Your task to perform on an android device: snooze an email in the gmail app Image 0: 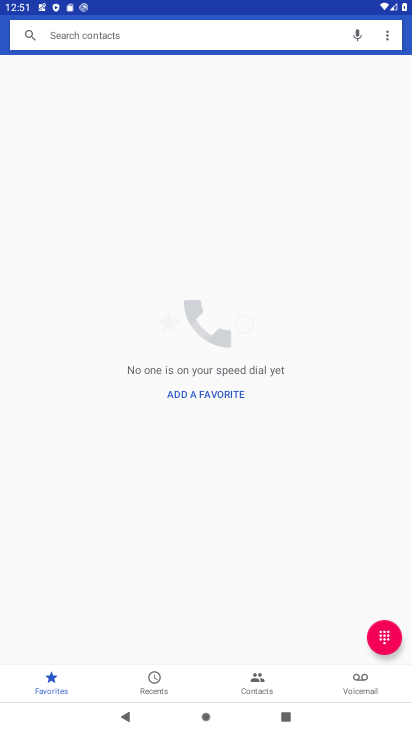
Step 0: press home button
Your task to perform on an android device: snooze an email in the gmail app Image 1: 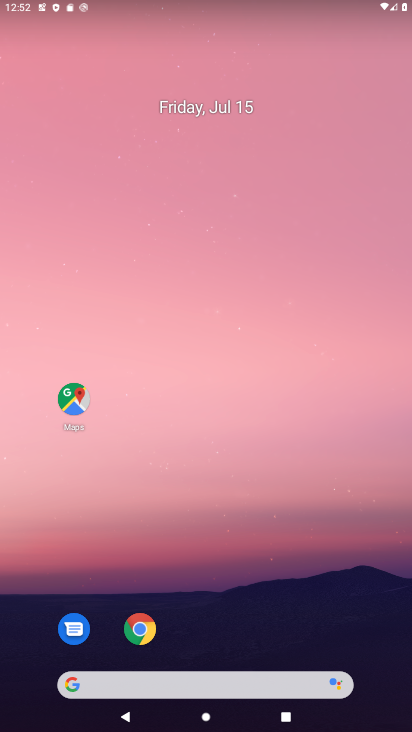
Step 1: drag from (292, 473) to (233, 112)
Your task to perform on an android device: snooze an email in the gmail app Image 2: 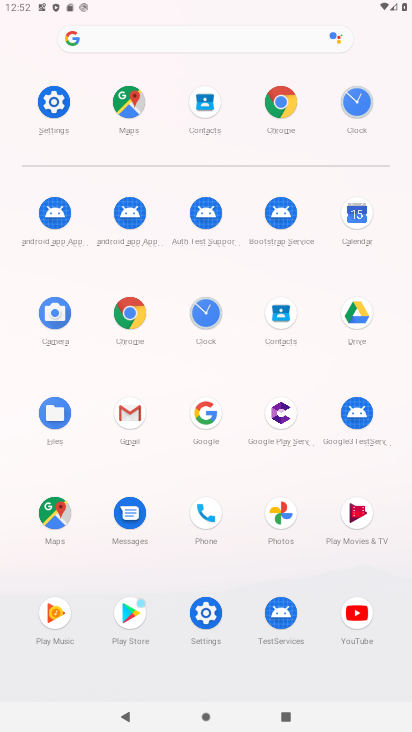
Step 2: click (137, 417)
Your task to perform on an android device: snooze an email in the gmail app Image 3: 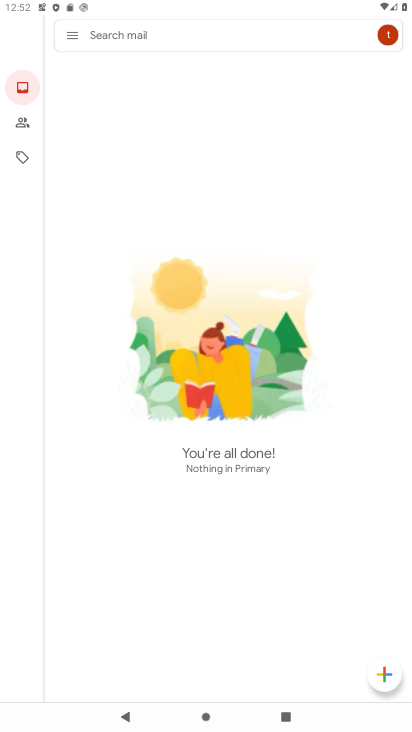
Step 3: click (71, 38)
Your task to perform on an android device: snooze an email in the gmail app Image 4: 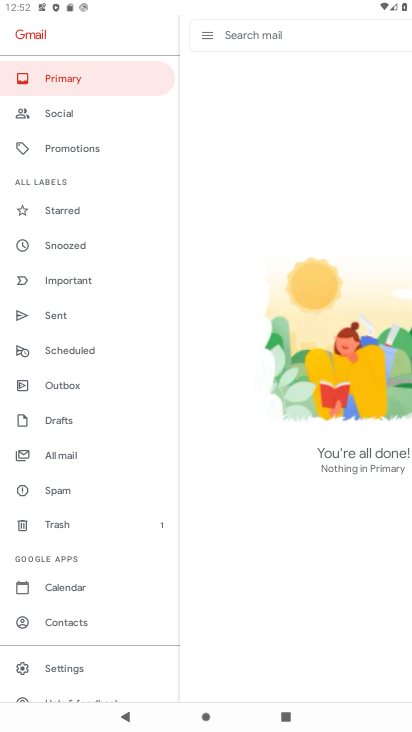
Step 4: click (74, 452)
Your task to perform on an android device: snooze an email in the gmail app Image 5: 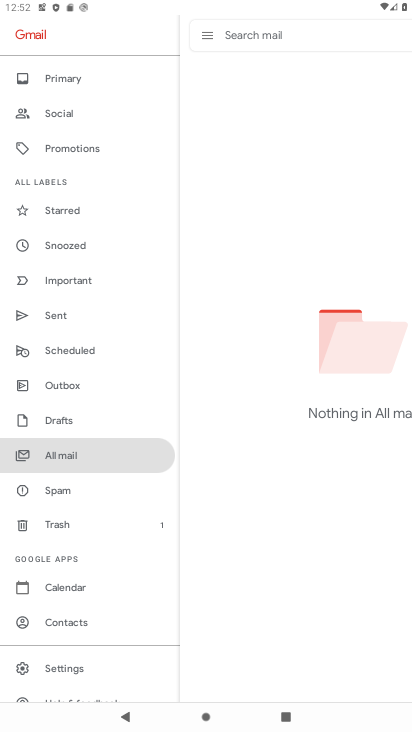
Step 5: task complete